Your task to perform on an android device: clear history in the chrome app Image 0: 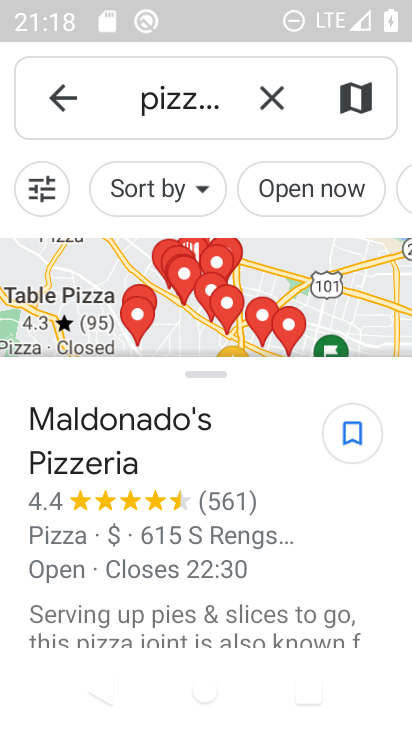
Step 0: press home button
Your task to perform on an android device: clear history in the chrome app Image 1: 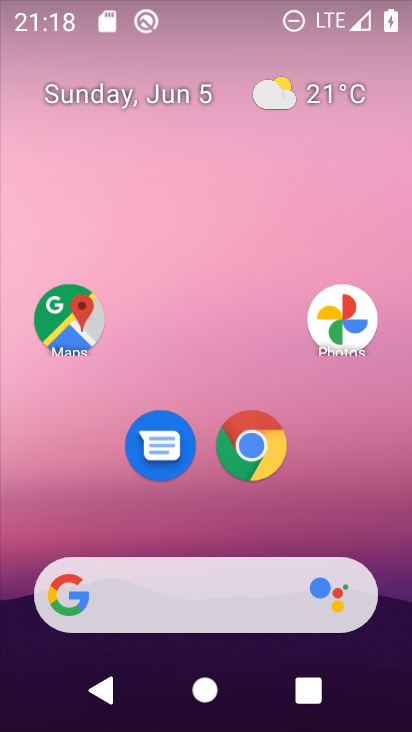
Step 1: click (264, 450)
Your task to perform on an android device: clear history in the chrome app Image 2: 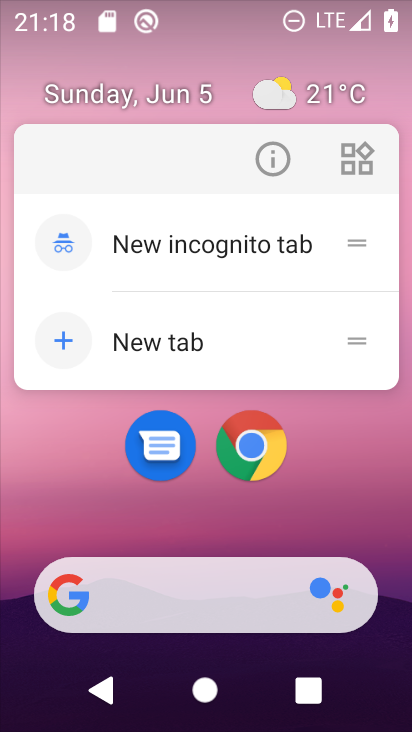
Step 2: click (261, 450)
Your task to perform on an android device: clear history in the chrome app Image 3: 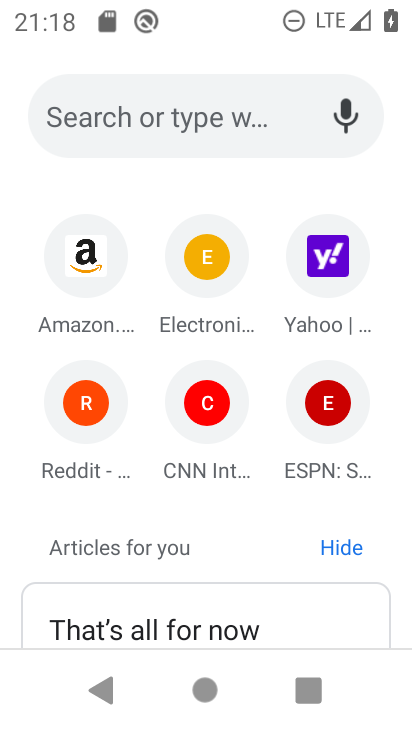
Step 3: drag from (374, 204) to (339, 636)
Your task to perform on an android device: clear history in the chrome app Image 4: 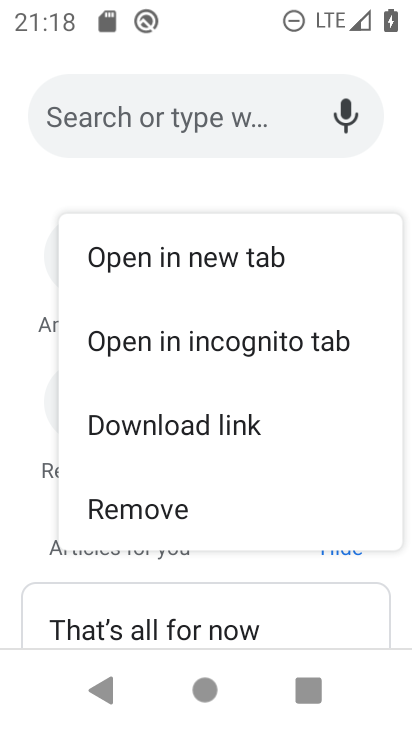
Step 4: click (57, 179)
Your task to perform on an android device: clear history in the chrome app Image 5: 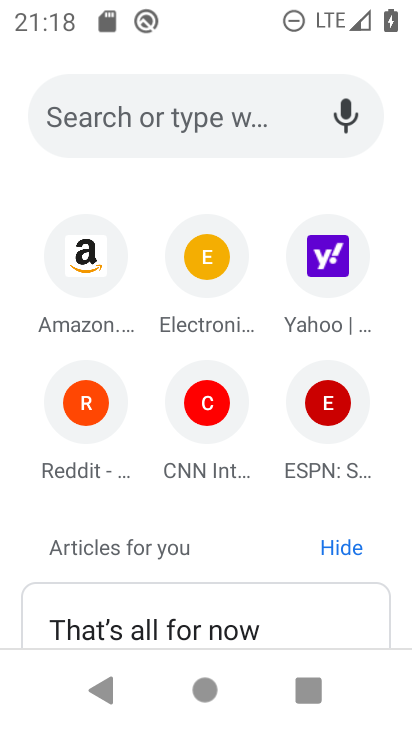
Step 5: drag from (61, 160) to (202, 459)
Your task to perform on an android device: clear history in the chrome app Image 6: 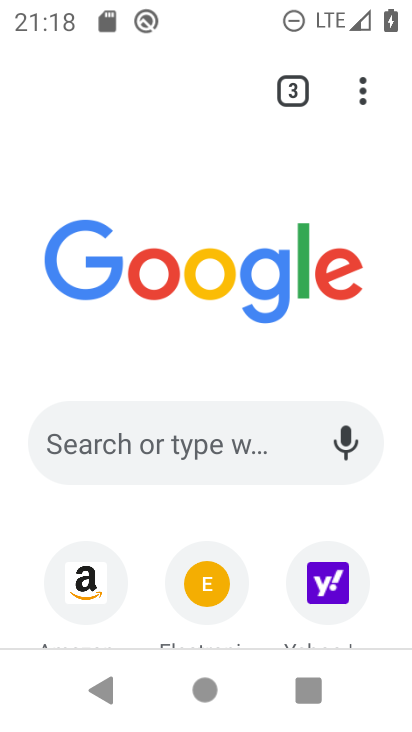
Step 6: click (364, 88)
Your task to perform on an android device: clear history in the chrome app Image 7: 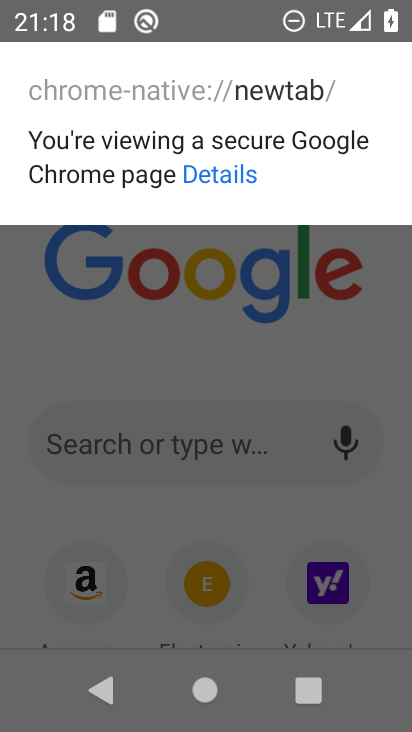
Step 7: click (364, 88)
Your task to perform on an android device: clear history in the chrome app Image 8: 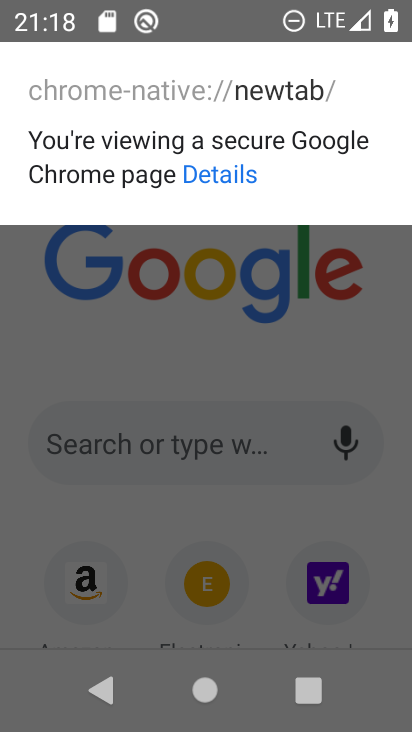
Step 8: click (364, 88)
Your task to perform on an android device: clear history in the chrome app Image 9: 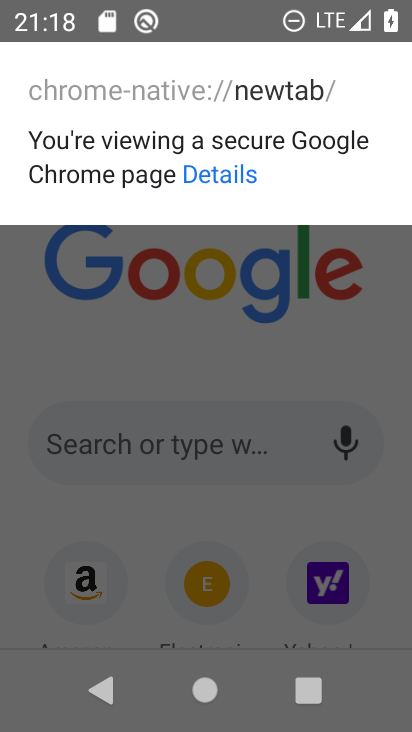
Step 9: click (149, 328)
Your task to perform on an android device: clear history in the chrome app Image 10: 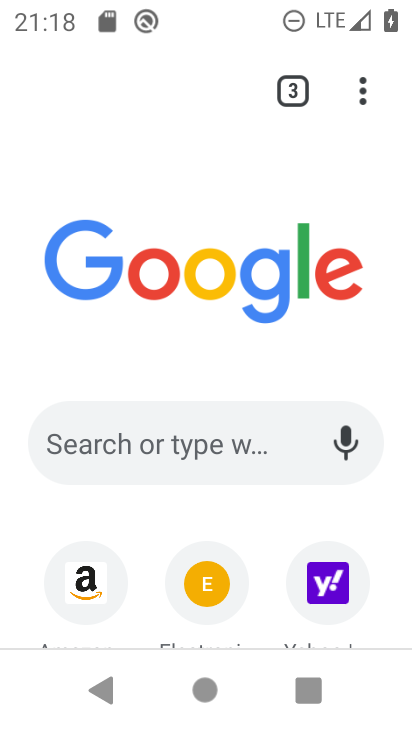
Step 10: click (149, 328)
Your task to perform on an android device: clear history in the chrome app Image 11: 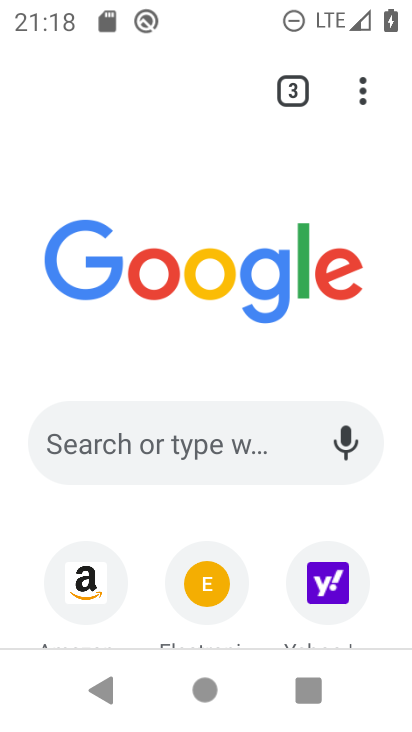
Step 11: drag from (368, 81) to (323, 165)
Your task to perform on an android device: clear history in the chrome app Image 12: 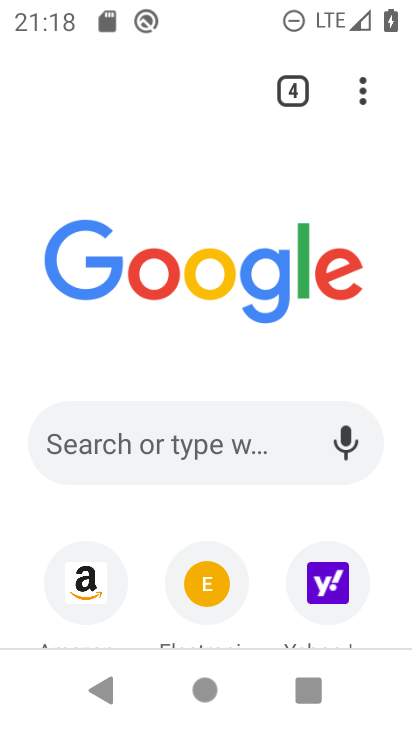
Step 12: click (357, 93)
Your task to perform on an android device: clear history in the chrome app Image 13: 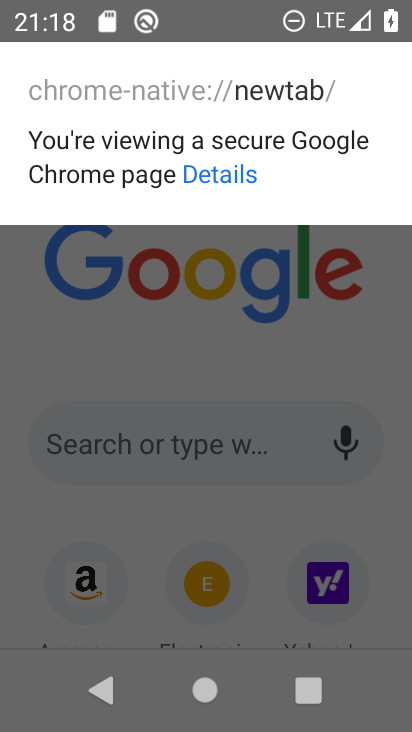
Step 13: click (220, 315)
Your task to perform on an android device: clear history in the chrome app Image 14: 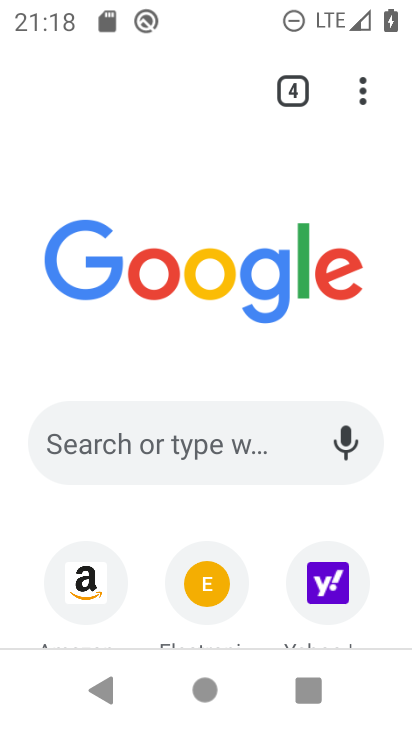
Step 14: drag from (361, 84) to (74, 519)
Your task to perform on an android device: clear history in the chrome app Image 15: 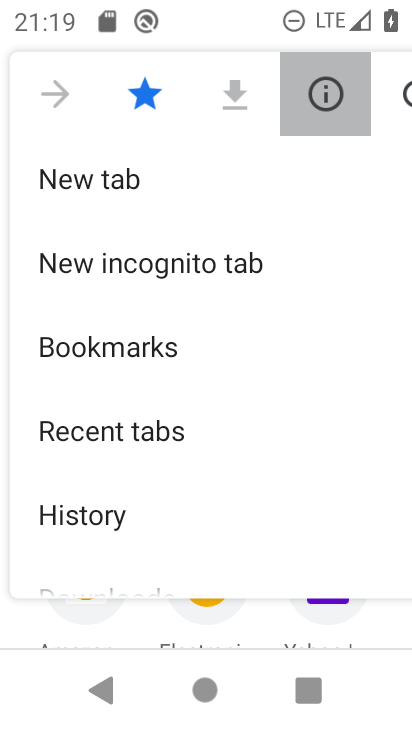
Step 15: click (71, 518)
Your task to perform on an android device: clear history in the chrome app Image 16: 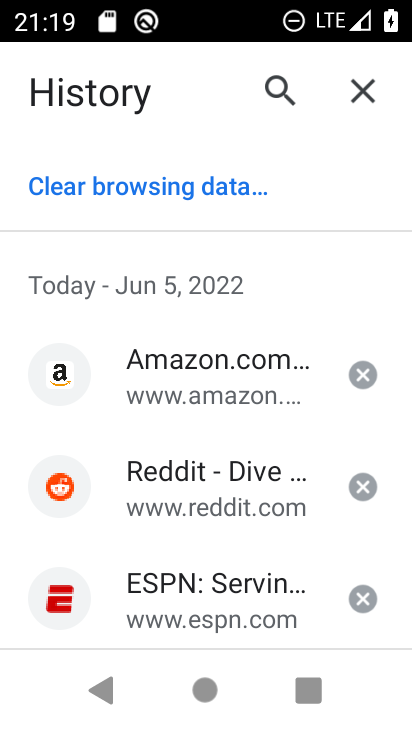
Step 16: click (141, 233)
Your task to perform on an android device: clear history in the chrome app Image 17: 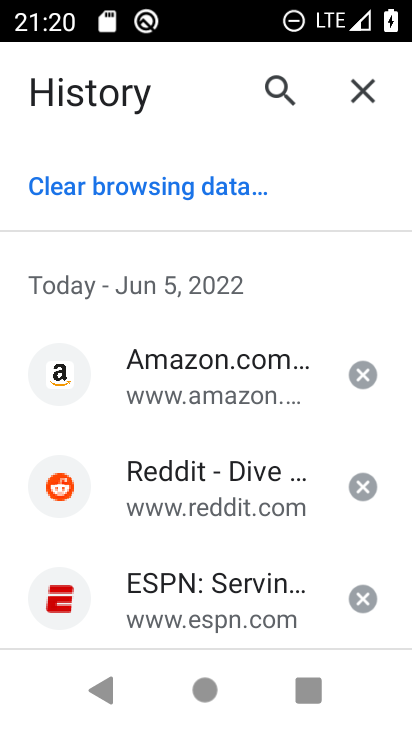
Step 17: click (135, 194)
Your task to perform on an android device: clear history in the chrome app Image 18: 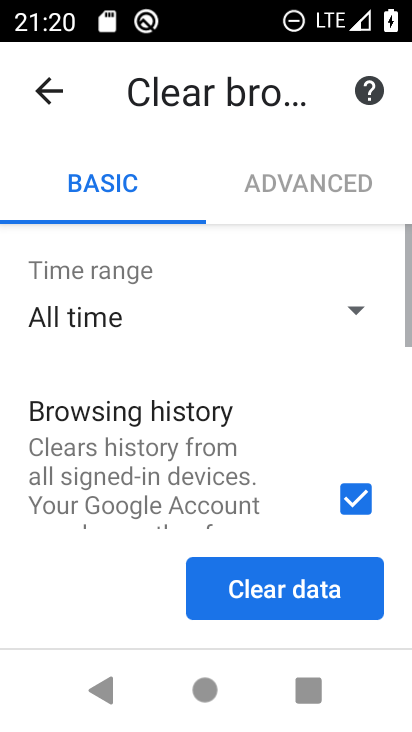
Step 18: drag from (285, 486) to (357, 222)
Your task to perform on an android device: clear history in the chrome app Image 19: 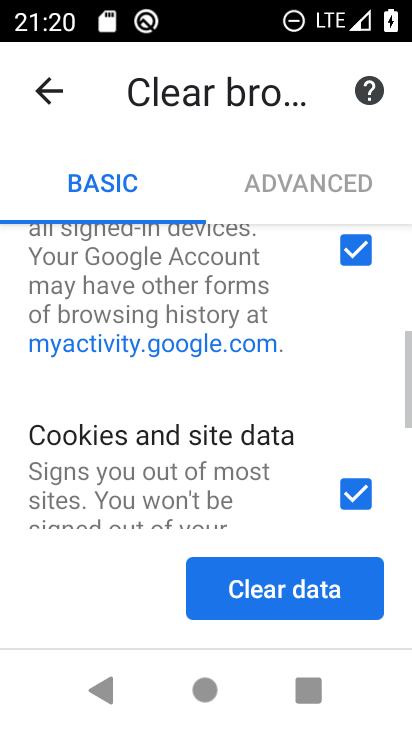
Step 19: click (285, 584)
Your task to perform on an android device: clear history in the chrome app Image 20: 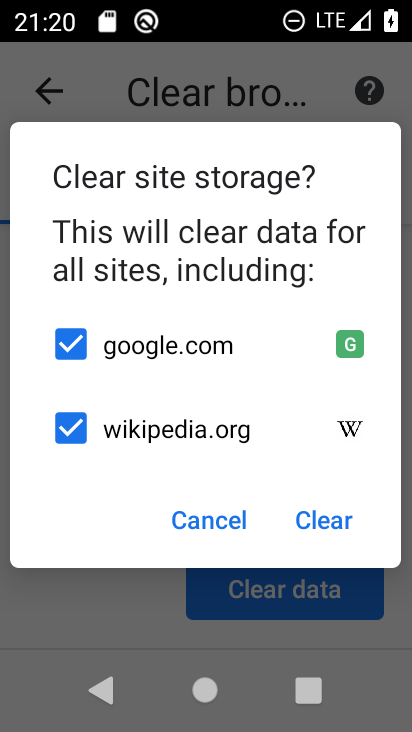
Step 20: click (326, 516)
Your task to perform on an android device: clear history in the chrome app Image 21: 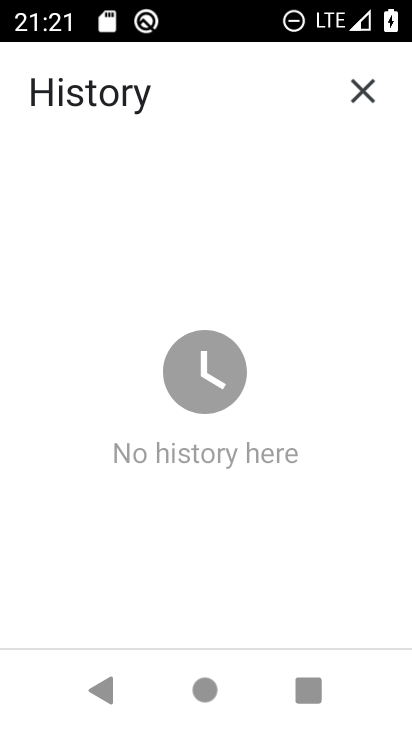
Step 21: task complete